Your task to perform on an android device: Do I have any events today? Image 0: 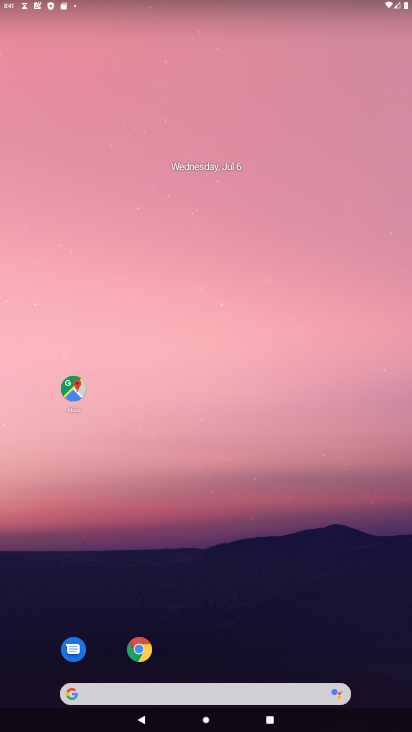
Step 0: drag from (196, 663) to (160, 2)
Your task to perform on an android device: Do I have any events today? Image 1: 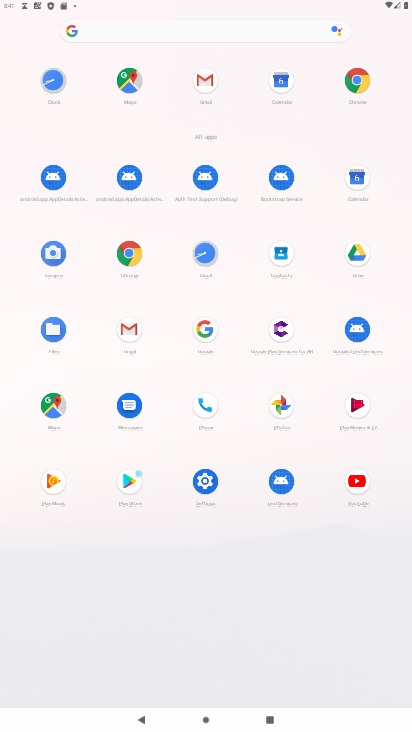
Step 1: task complete